Your task to perform on an android device: toggle data saver in the chrome app Image 0: 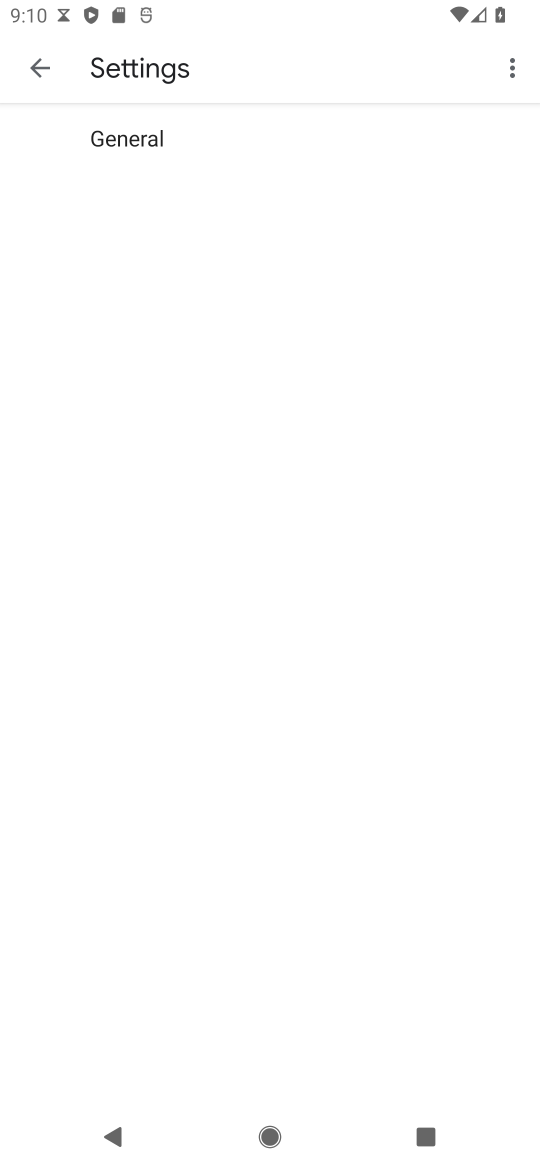
Step 0: press home button
Your task to perform on an android device: toggle data saver in the chrome app Image 1: 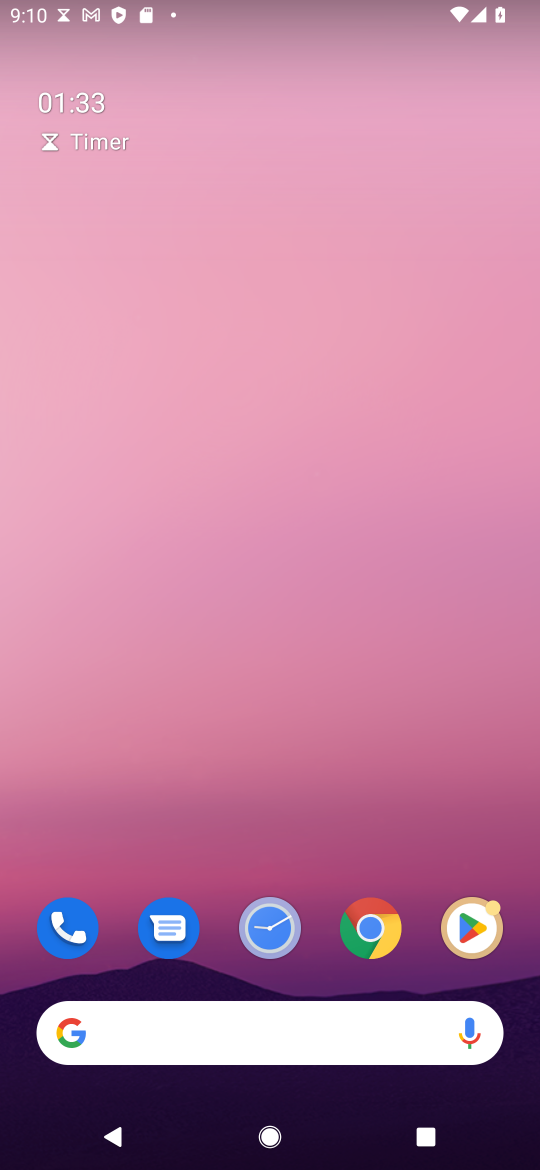
Step 1: click (379, 924)
Your task to perform on an android device: toggle data saver in the chrome app Image 2: 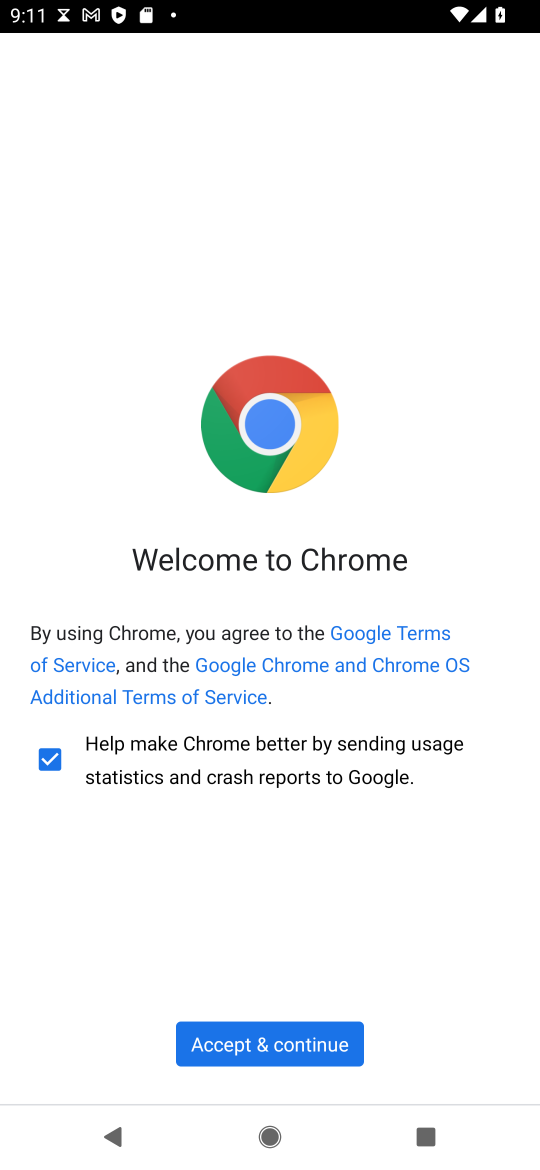
Step 2: click (346, 1027)
Your task to perform on an android device: toggle data saver in the chrome app Image 3: 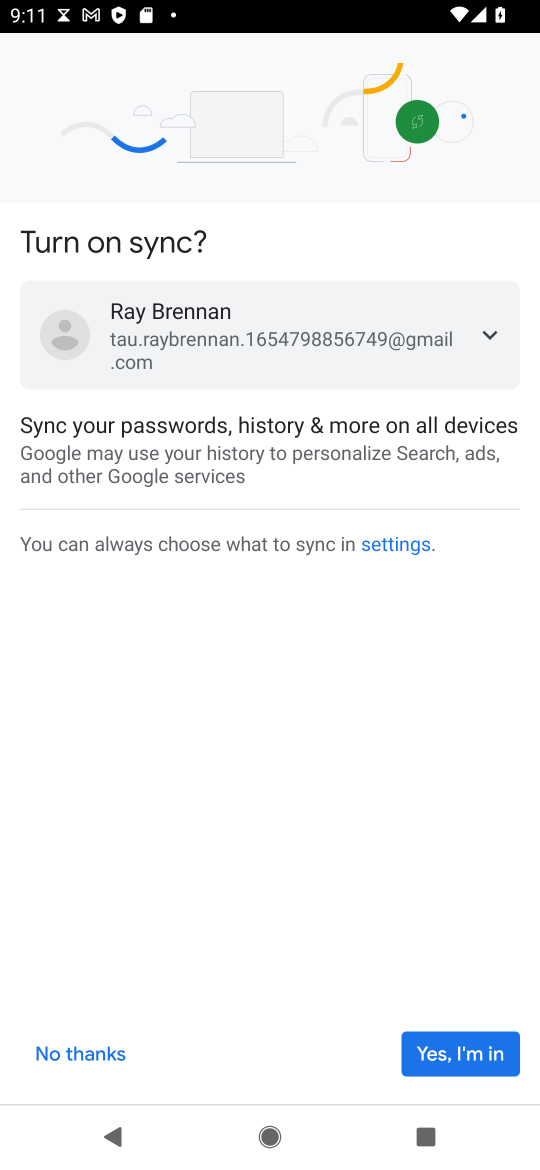
Step 3: click (453, 1047)
Your task to perform on an android device: toggle data saver in the chrome app Image 4: 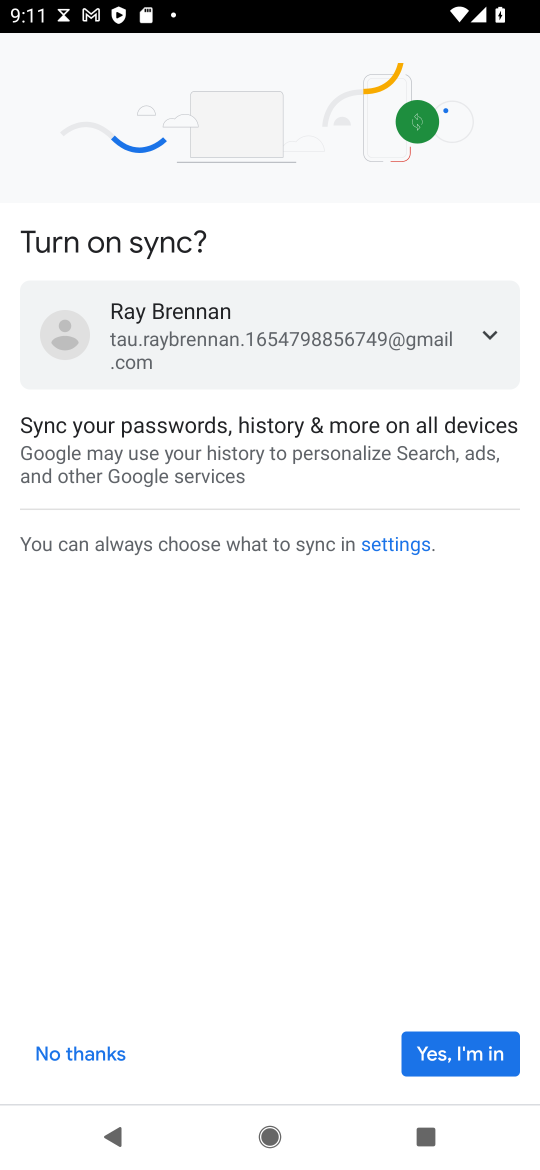
Step 4: click (453, 1047)
Your task to perform on an android device: toggle data saver in the chrome app Image 5: 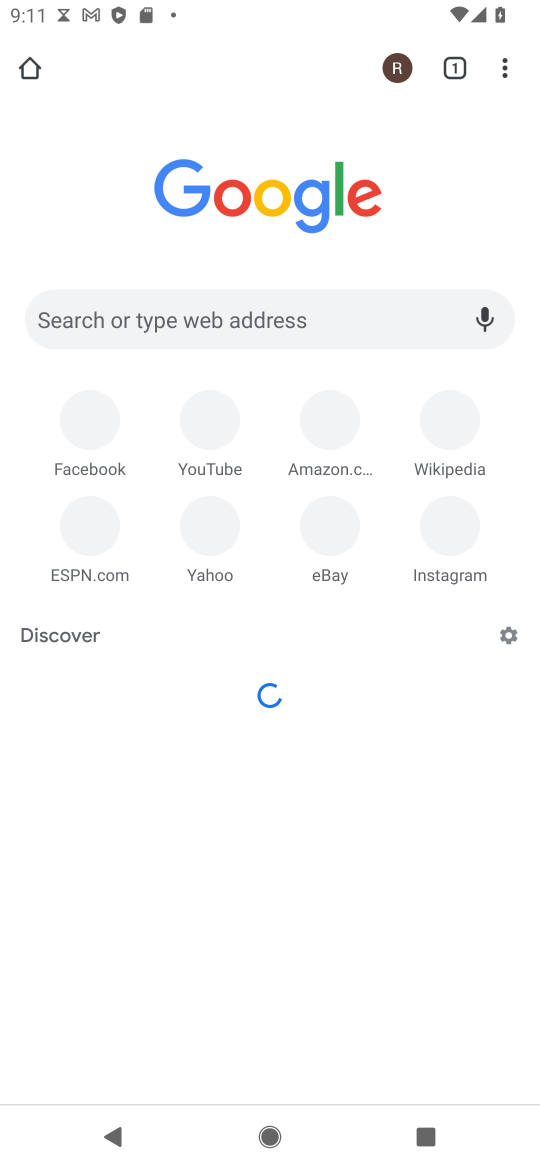
Step 5: click (505, 86)
Your task to perform on an android device: toggle data saver in the chrome app Image 6: 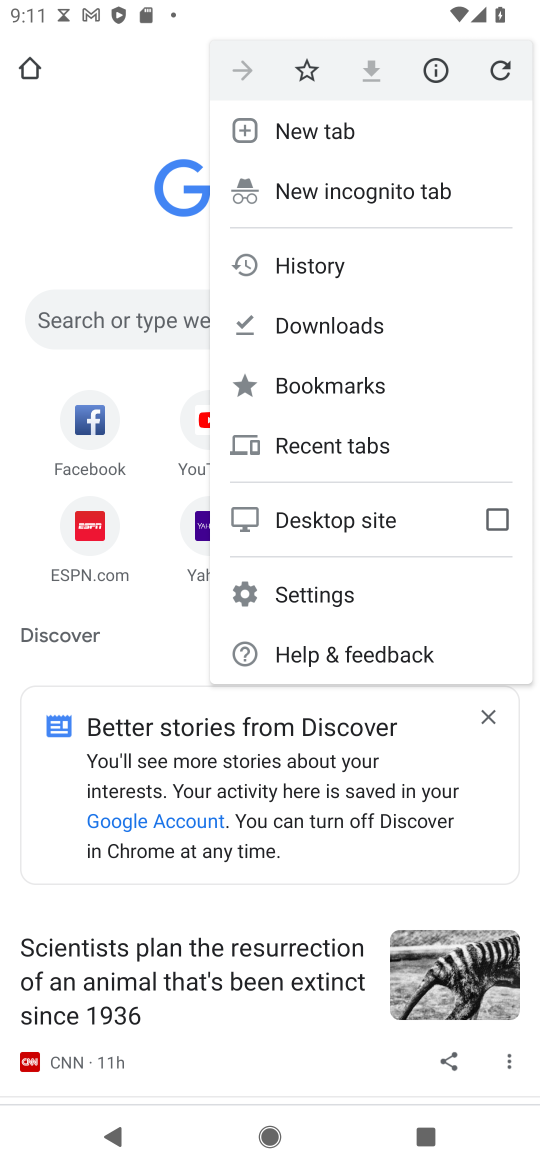
Step 6: click (429, 592)
Your task to perform on an android device: toggle data saver in the chrome app Image 7: 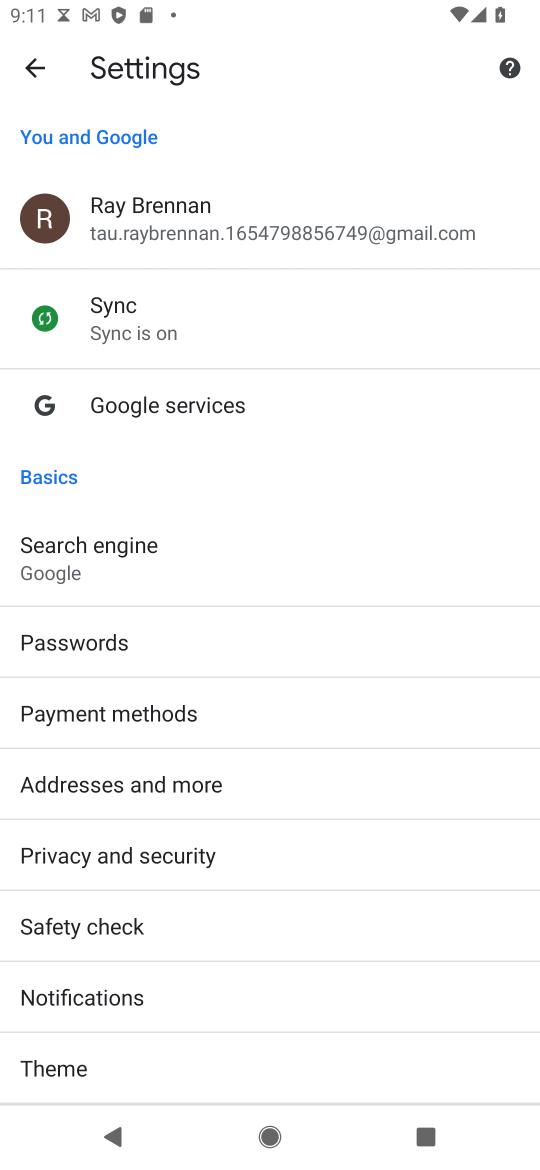
Step 7: drag from (435, 913) to (299, 399)
Your task to perform on an android device: toggle data saver in the chrome app Image 8: 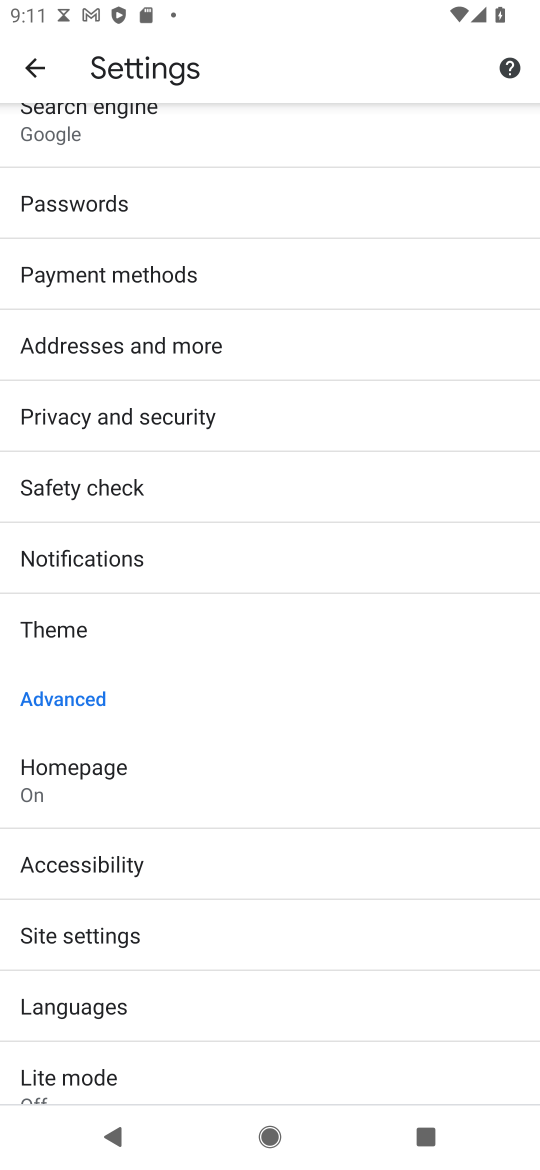
Step 8: click (179, 1068)
Your task to perform on an android device: toggle data saver in the chrome app Image 9: 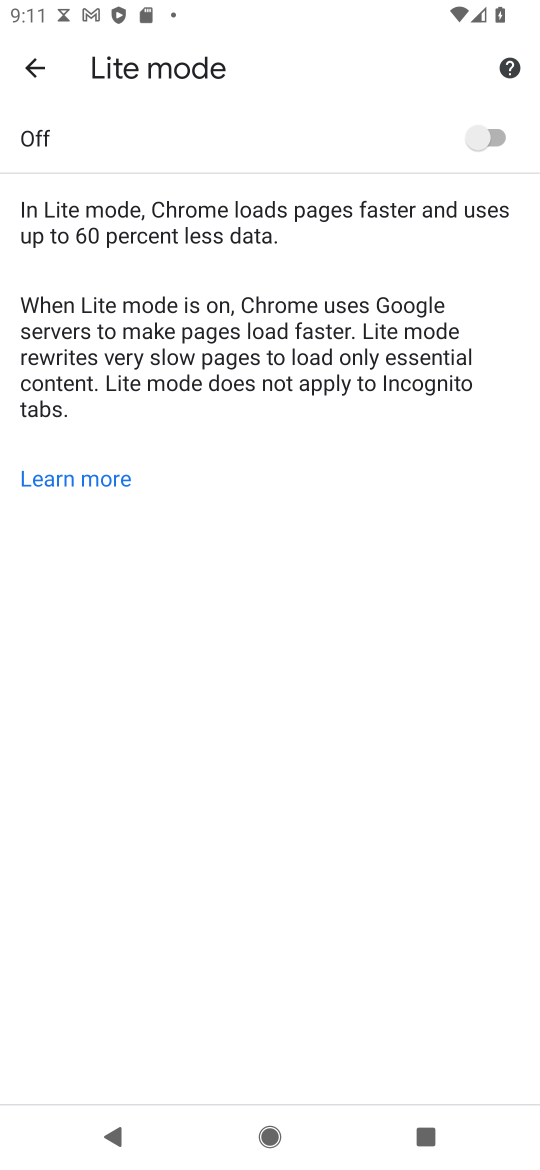
Step 9: click (491, 148)
Your task to perform on an android device: toggle data saver in the chrome app Image 10: 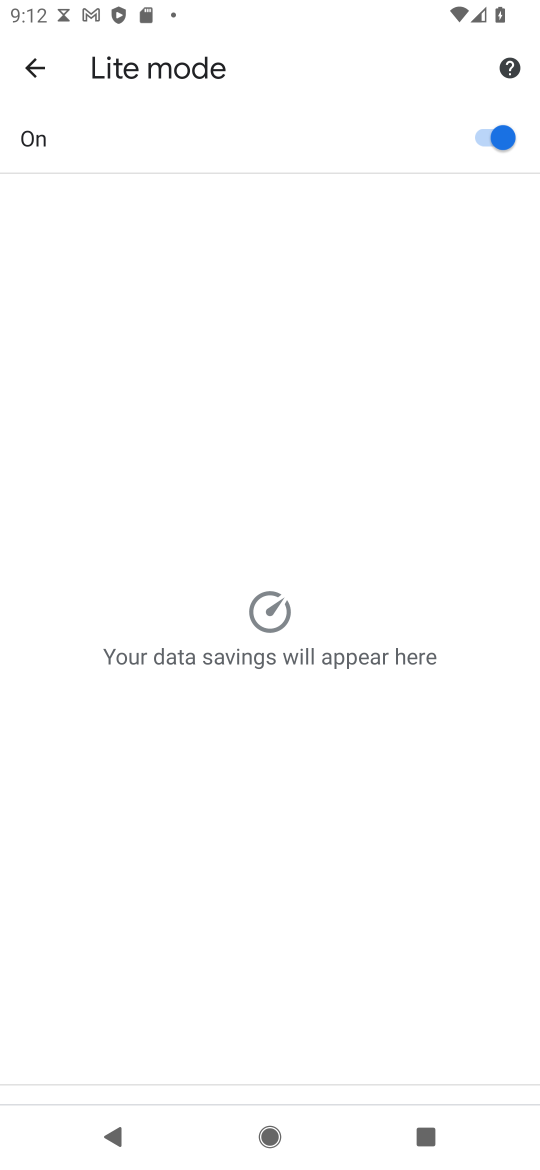
Step 10: task complete